Your task to perform on an android device: add a contact in the contacts app Image 0: 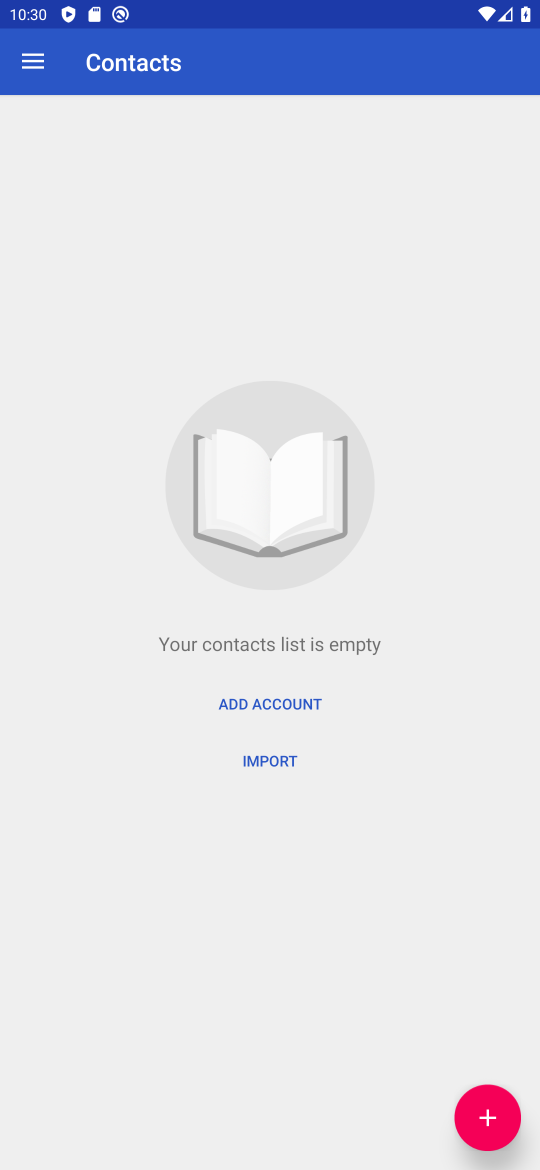
Step 0: click (467, 1108)
Your task to perform on an android device: add a contact in the contacts app Image 1: 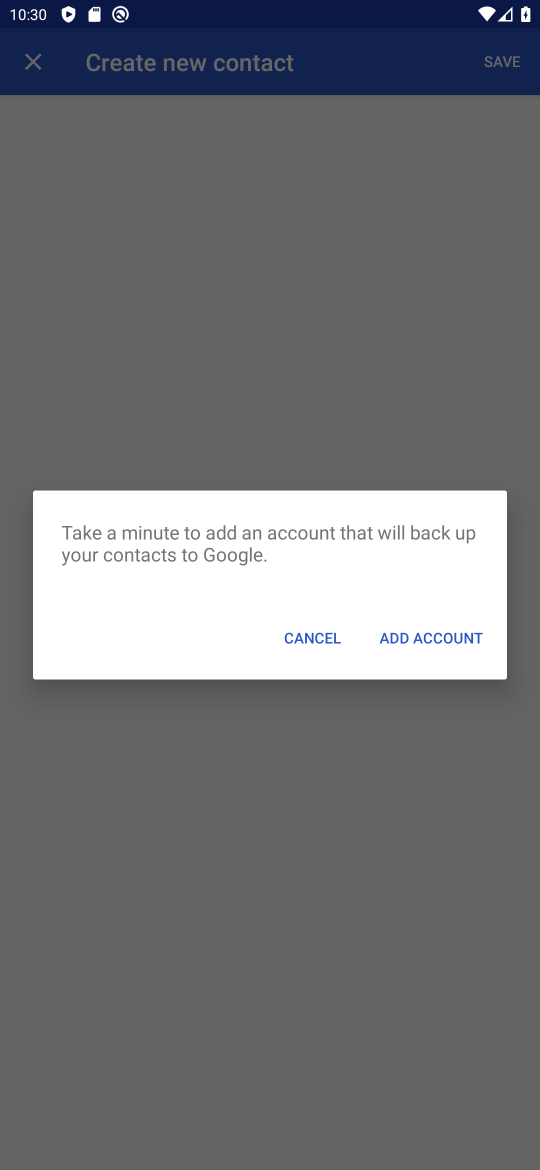
Step 1: click (426, 645)
Your task to perform on an android device: add a contact in the contacts app Image 2: 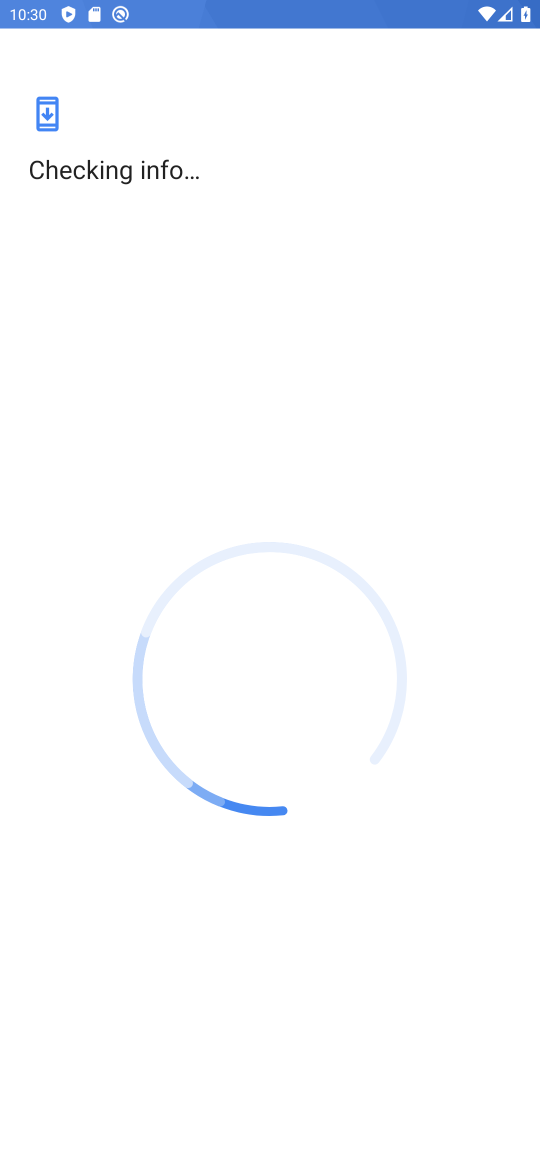
Step 2: task complete